Your task to perform on an android device: Open sound settings Image 0: 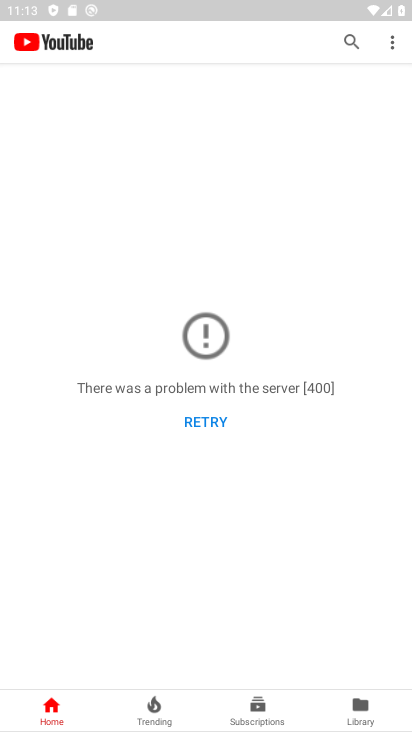
Step 0: press home button
Your task to perform on an android device: Open sound settings Image 1: 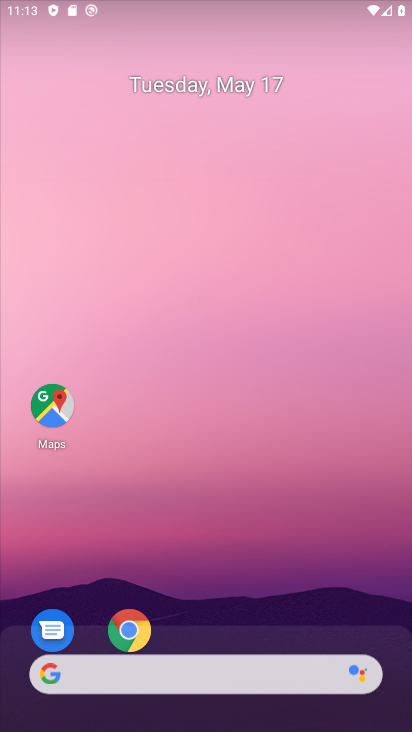
Step 1: drag from (314, 615) to (295, 70)
Your task to perform on an android device: Open sound settings Image 2: 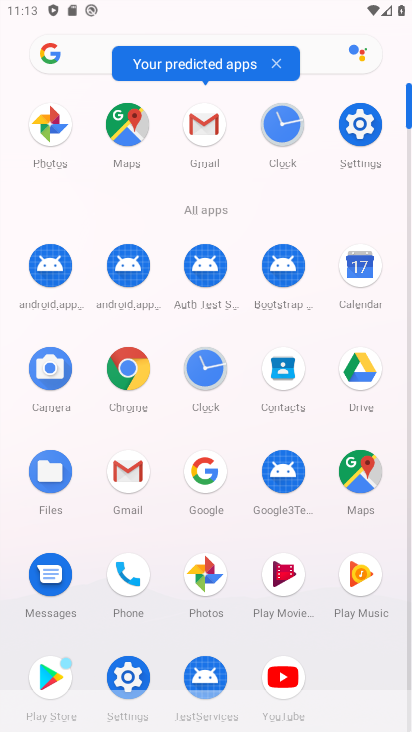
Step 2: click (363, 133)
Your task to perform on an android device: Open sound settings Image 3: 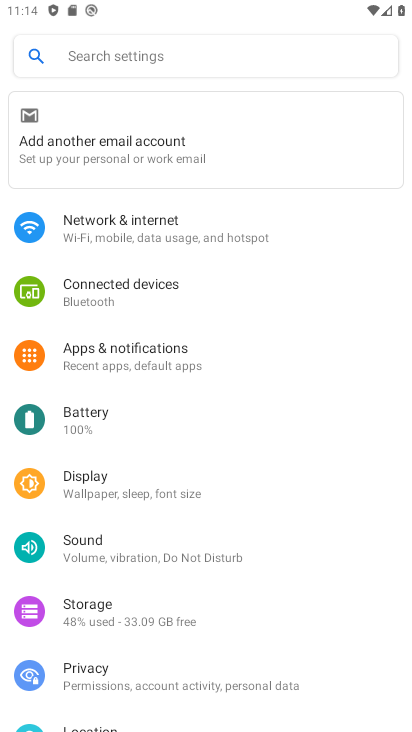
Step 3: click (97, 544)
Your task to perform on an android device: Open sound settings Image 4: 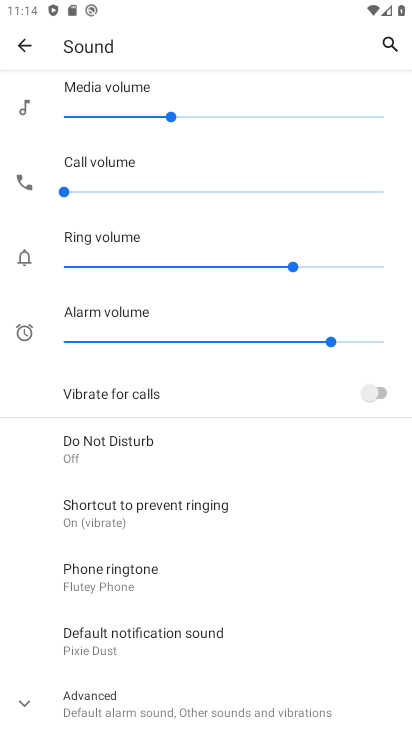
Step 4: task complete